Your task to perform on an android device: Open internet settings Image 0: 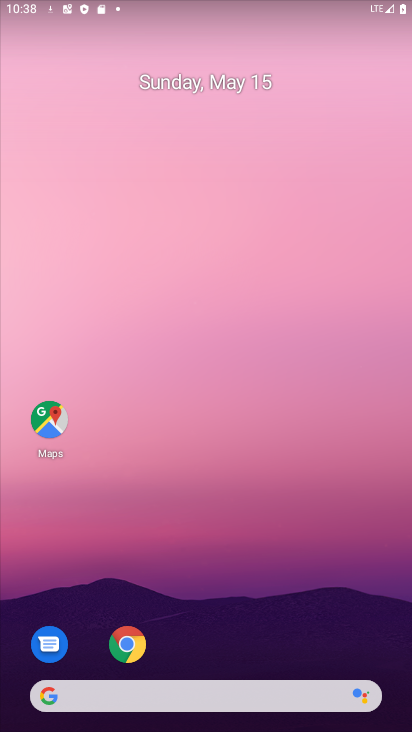
Step 0: drag from (348, 696) to (250, 293)
Your task to perform on an android device: Open internet settings Image 1: 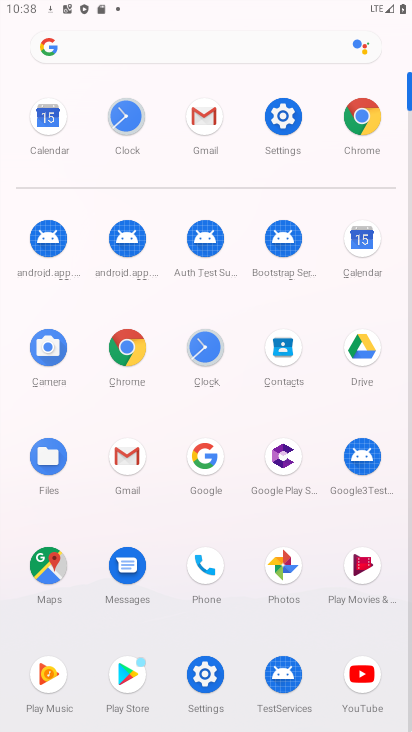
Step 1: click (276, 125)
Your task to perform on an android device: Open internet settings Image 2: 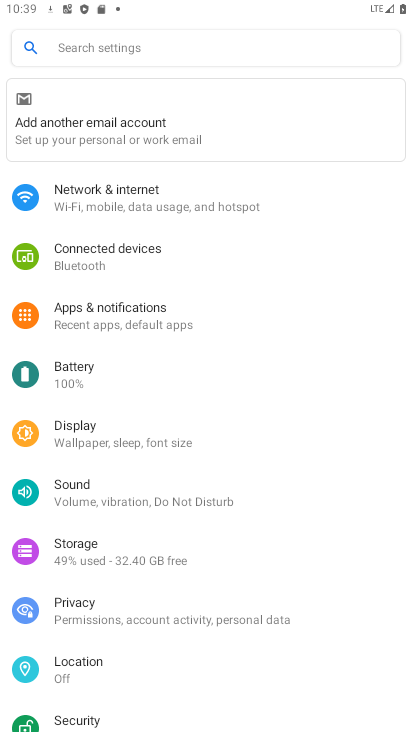
Step 2: click (211, 193)
Your task to perform on an android device: Open internet settings Image 3: 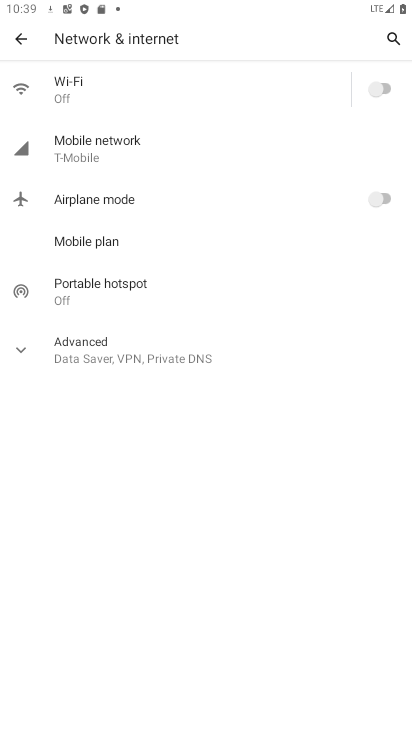
Step 3: task complete